Your task to perform on an android device: read, delete, or share a saved page in the chrome app Image 0: 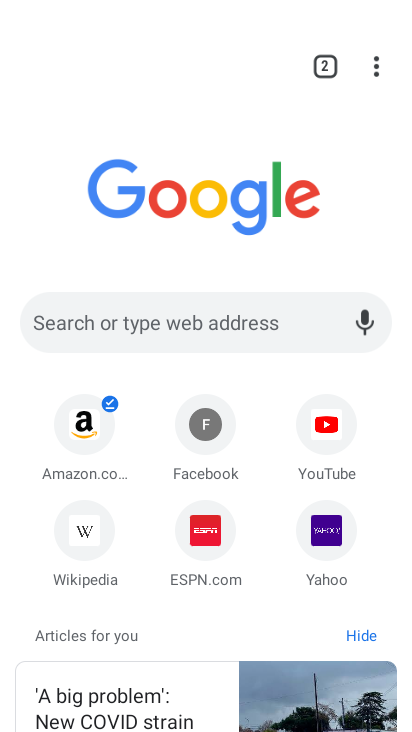
Step 0: press home button
Your task to perform on an android device: read, delete, or share a saved page in the chrome app Image 1: 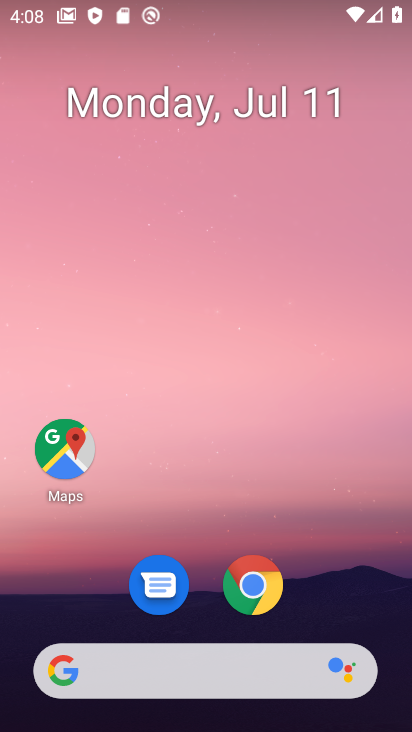
Step 1: drag from (193, 500) to (218, 208)
Your task to perform on an android device: read, delete, or share a saved page in the chrome app Image 2: 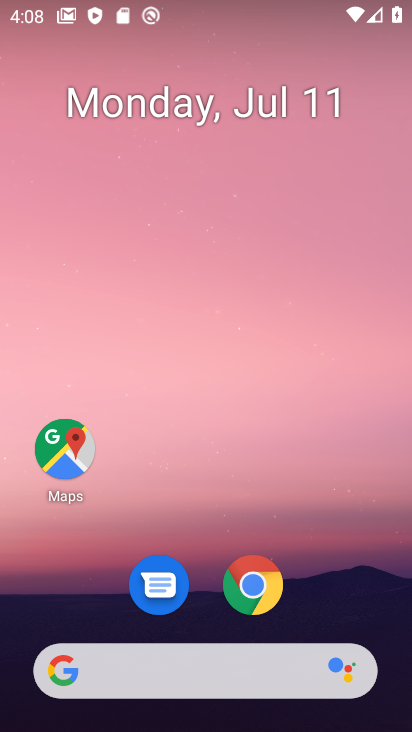
Step 2: click (257, 580)
Your task to perform on an android device: read, delete, or share a saved page in the chrome app Image 3: 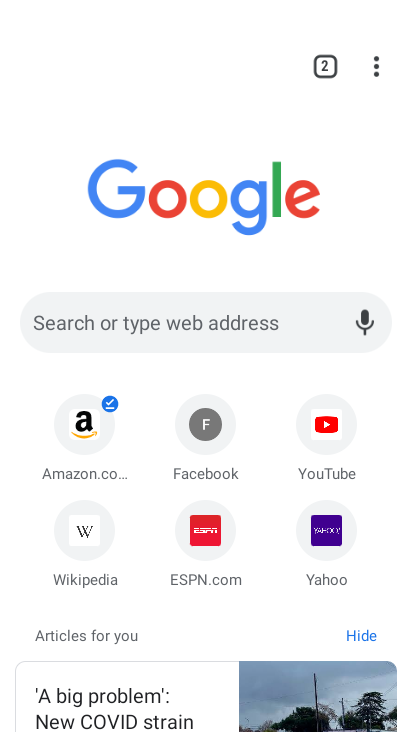
Step 3: click (376, 74)
Your task to perform on an android device: read, delete, or share a saved page in the chrome app Image 4: 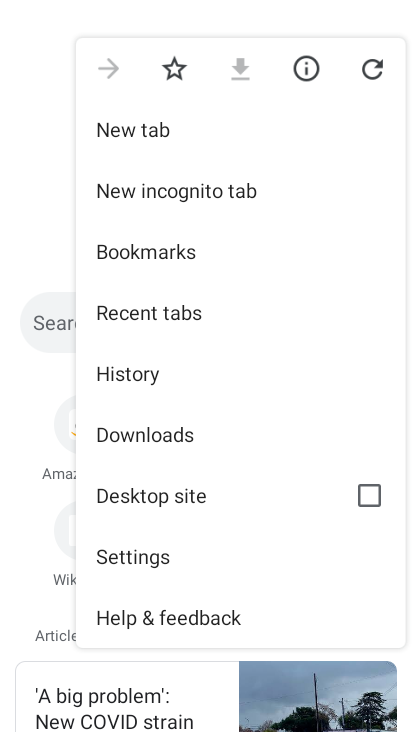
Step 4: click (160, 431)
Your task to perform on an android device: read, delete, or share a saved page in the chrome app Image 5: 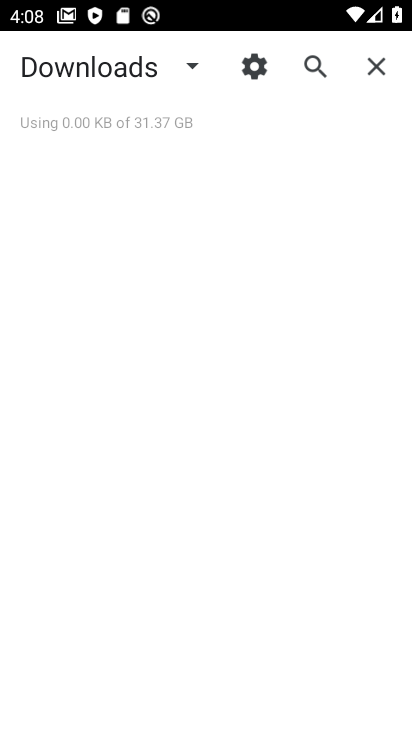
Step 5: task complete